Your task to perform on an android device: What's the weather going to be this weekend? Image 0: 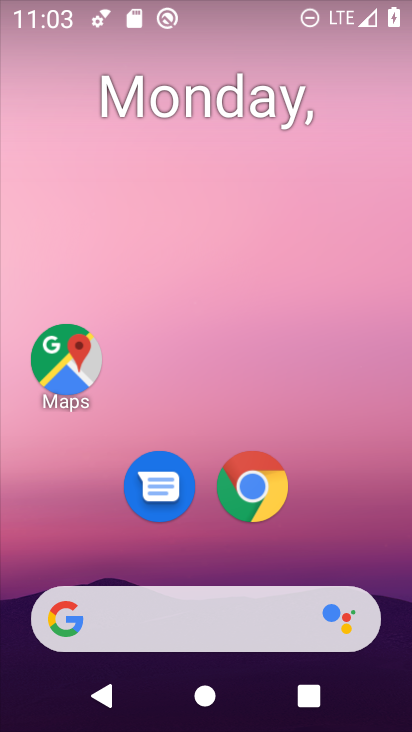
Step 0: click (202, 609)
Your task to perform on an android device: What's the weather going to be this weekend? Image 1: 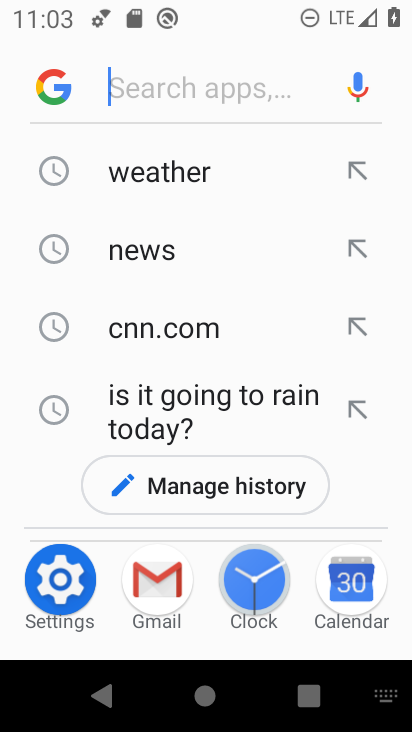
Step 1: click (159, 181)
Your task to perform on an android device: What's the weather going to be this weekend? Image 2: 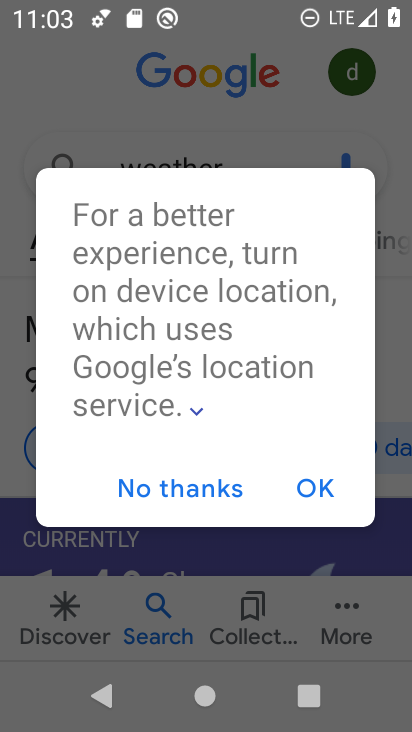
Step 2: click (152, 495)
Your task to perform on an android device: What's the weather going to be this weekend? Image 3: 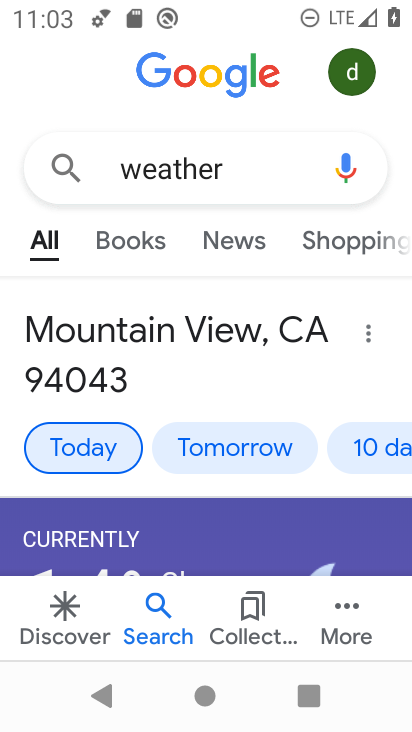
Step 3: task complete